Your task to perform on an android device: Open Youtube and go to "Your channel" Image 0: 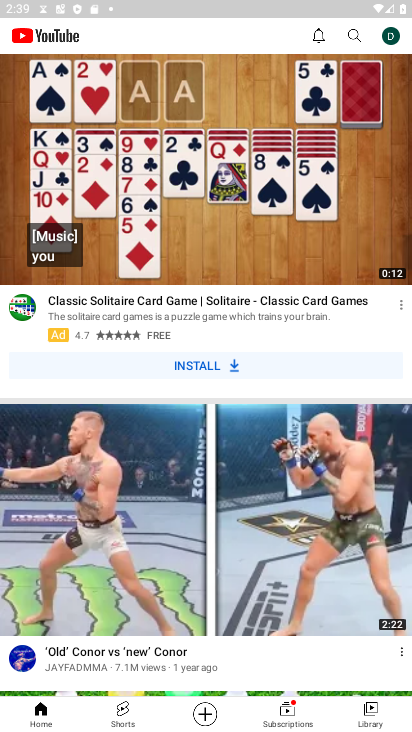
Step 0: press home button
Your task to perform on an android device: Open Youtube and go to "Your channel" Image 1: 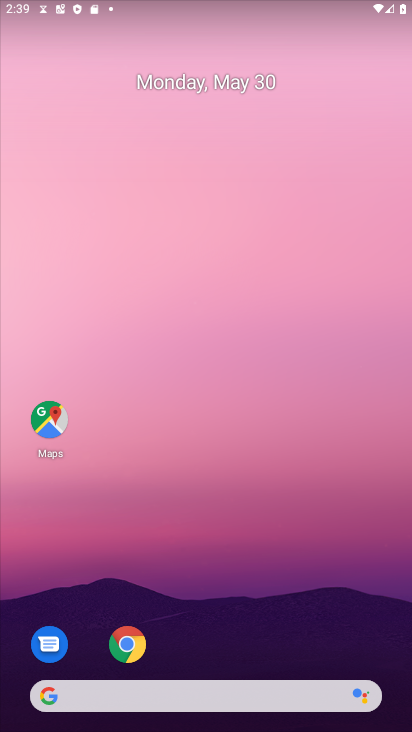
Step 1: drag from (301, 543) to (280, 126)
Your task to perform on an android device: Open Youtube and go to "Your channel" Image 2: 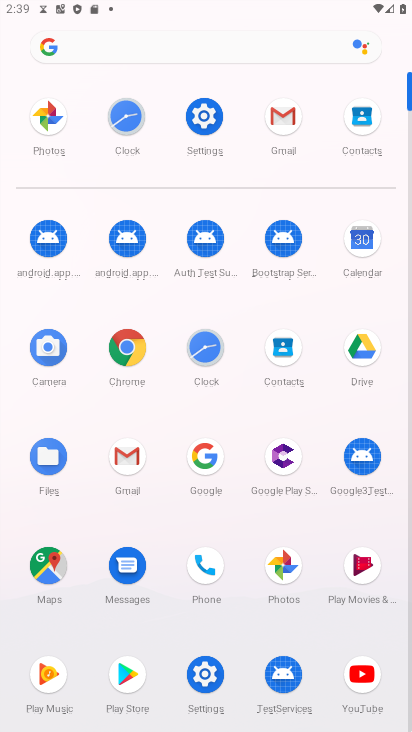
Step 2: click (363, 673)
Your task to perform on an android device: Open Youtube and go to "Your channel" Image 3: 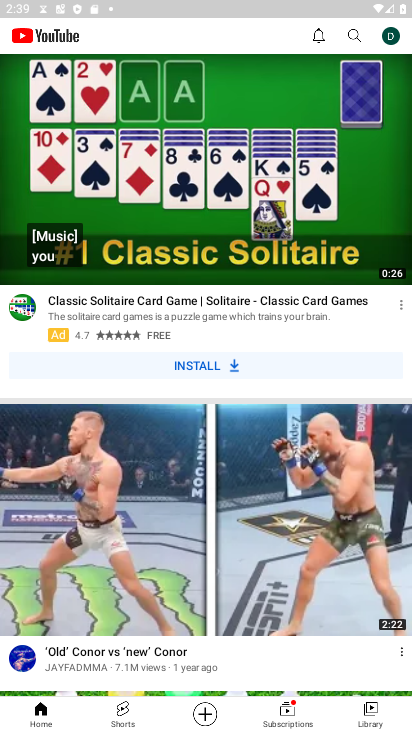
Step 3: click (388, 33)
Your task to perform on an android device: Open Youtube and go to "Your channel" Image 4: 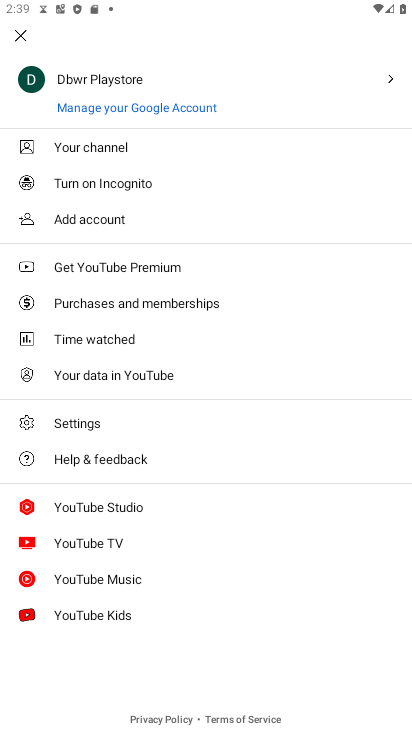
Step 4: click (79, 144)
Your task to perform on an android device: Open Youtube and go to "Your channel" Image 5: 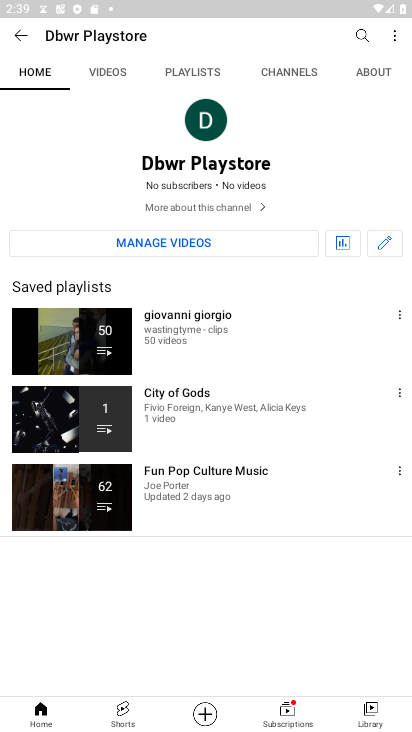
Step 5: task complete